Your task to perform on an android device: change the clock style Image 0: 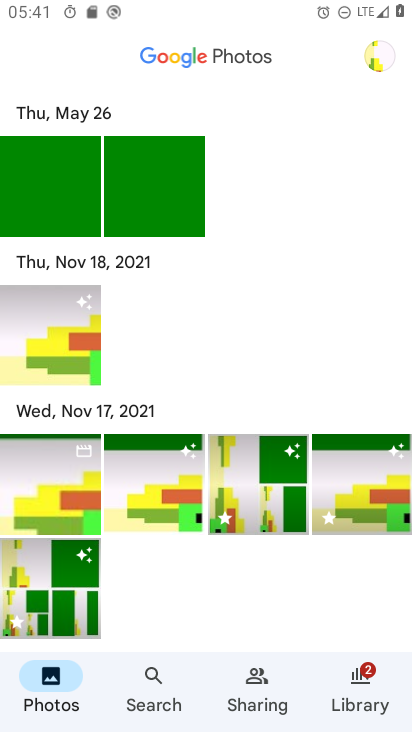
Step 0: press home button
Your task to perform on an android device: change the clock style Image 1: 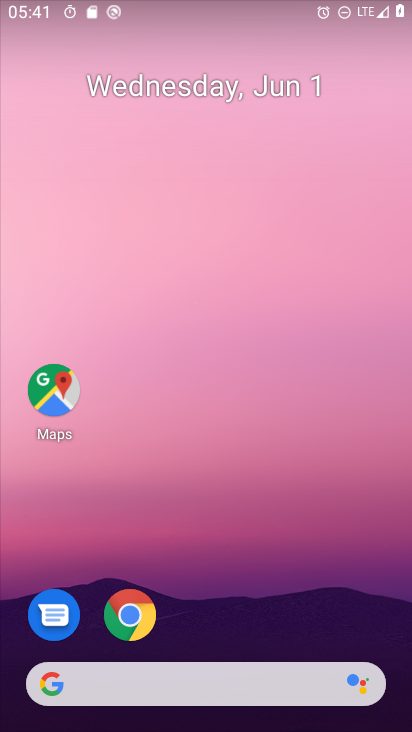
Step 1: drag from (281, 671) to (335, 26)
Your task to perform on an android device: change the clock style Image 2: 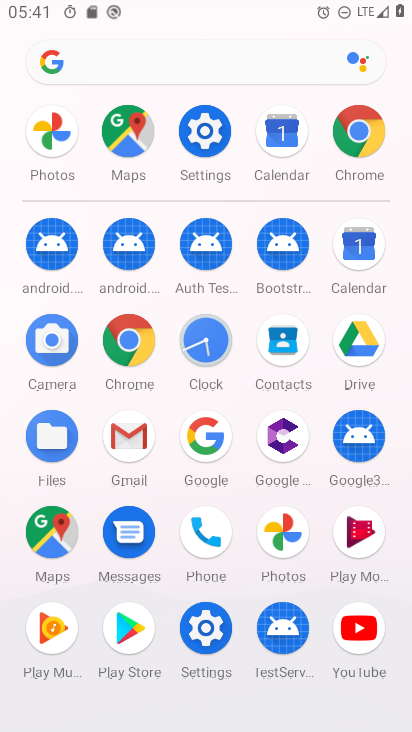
Step 2: click (208, 342)
Your task to perform on an android device: change the clock style Image 3: 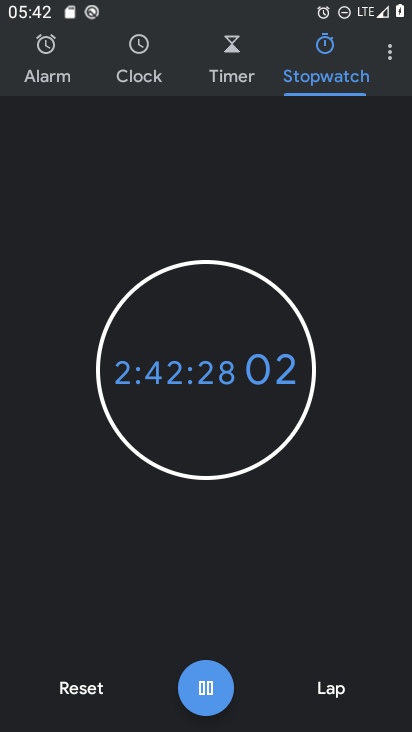
Step 3: click (383, 49)
Your task to perform on an android device: change the clock style Image 4: 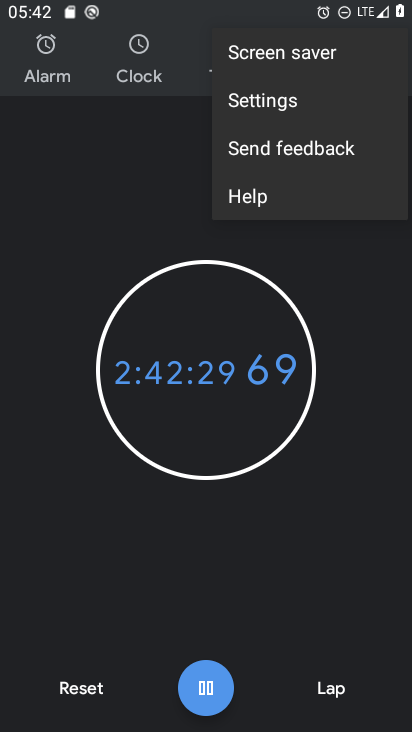
Step 4: click (247, 97)
Your task to perform on an android device: change the clock style Image 5: 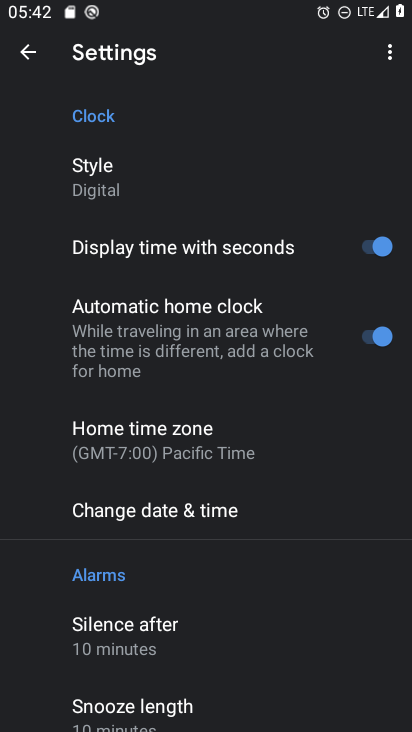
Step 5: click (137, 184)
Your task to perform on an android device: change the clock style Image 6: 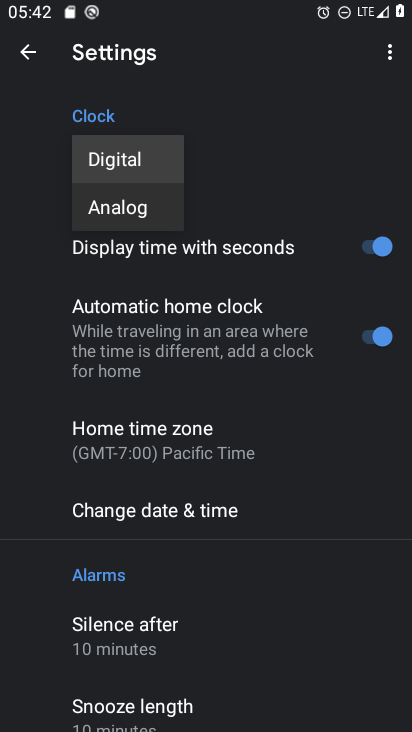
Step 6: click (131, 195)
Your task to perform on an android device: change the clock style Image 7: 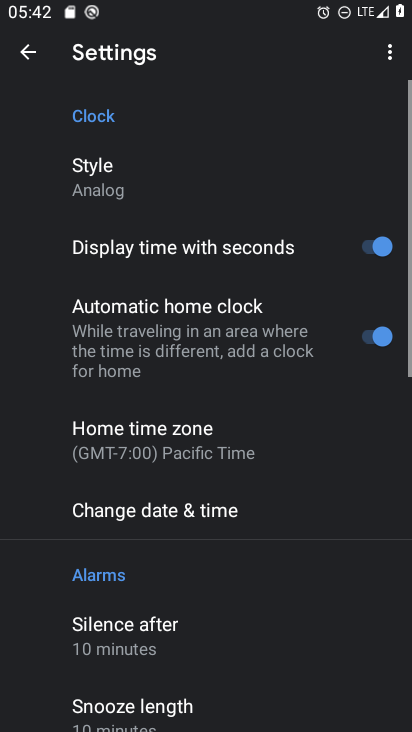
Step 7: task complete